Your task to perform on an android device: Open settings on Google Maps Image 0: 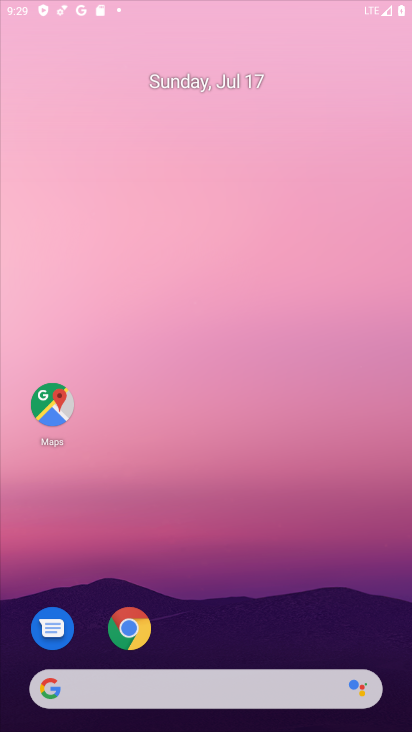
Step 0: press home button
Your task to perform on an android device: Open settings on Google Maps Image 1: 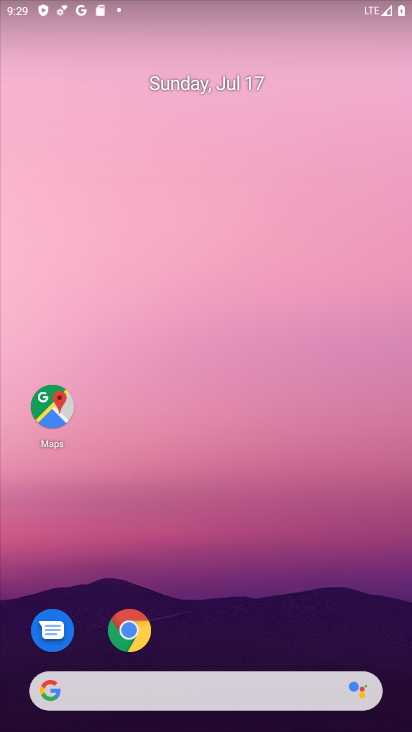
Step 1: click (68, 388)
Your task to perform on an android device: Open settings on Google Maps Image 2: 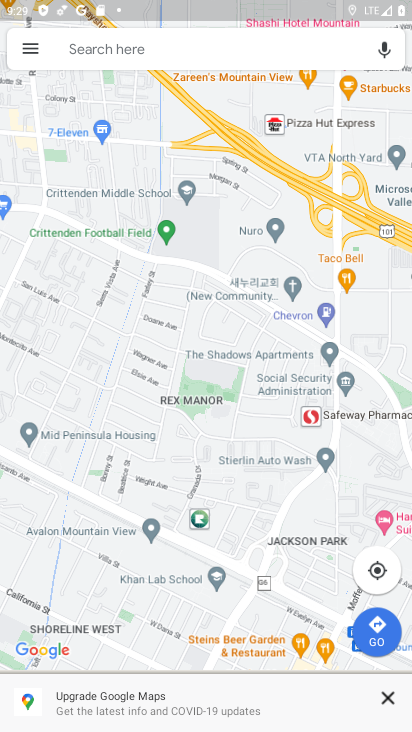
Step 2: click (26, 40)
Your task to perform on an android device: Open settings on Google Maps Image 3: 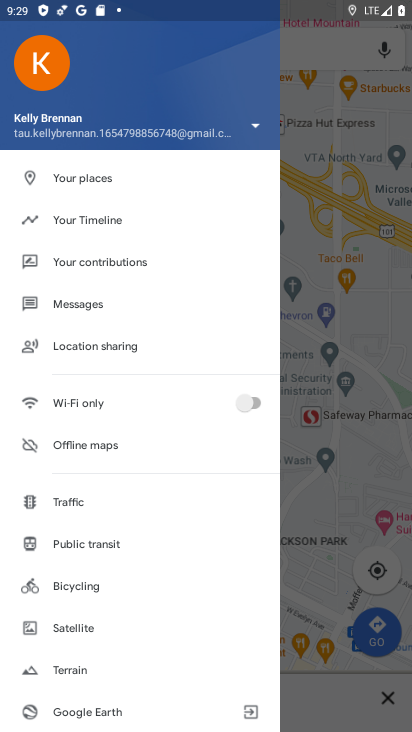
Step 3: drag from (123, 670) to (138, 152)
Your task to perform on an android device: Open settings on Google Maps Image 4: 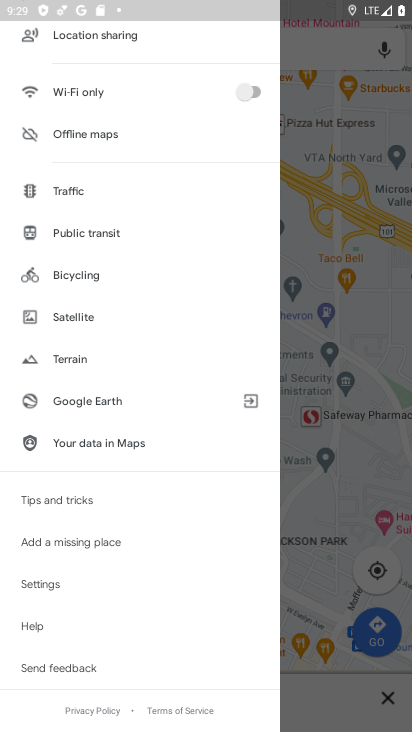
Step 4: click (66, 581)
Your task to perform on an android device: Open settings on Google Maps Image 5: 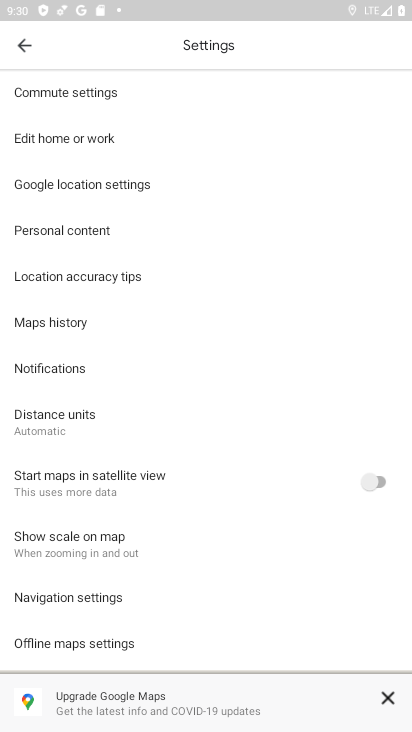
Step 5: task complete